Your task to perform on an android device: What's the news this week? Image 0: 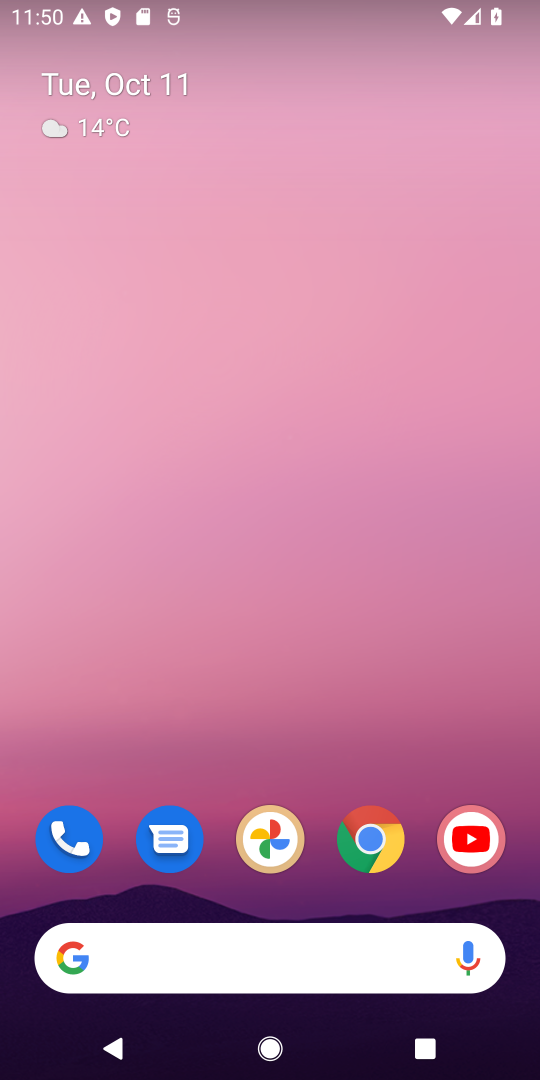
Step 0: click (360, 826)
Your task to perform on an android device: What's the news this week? Image 1: 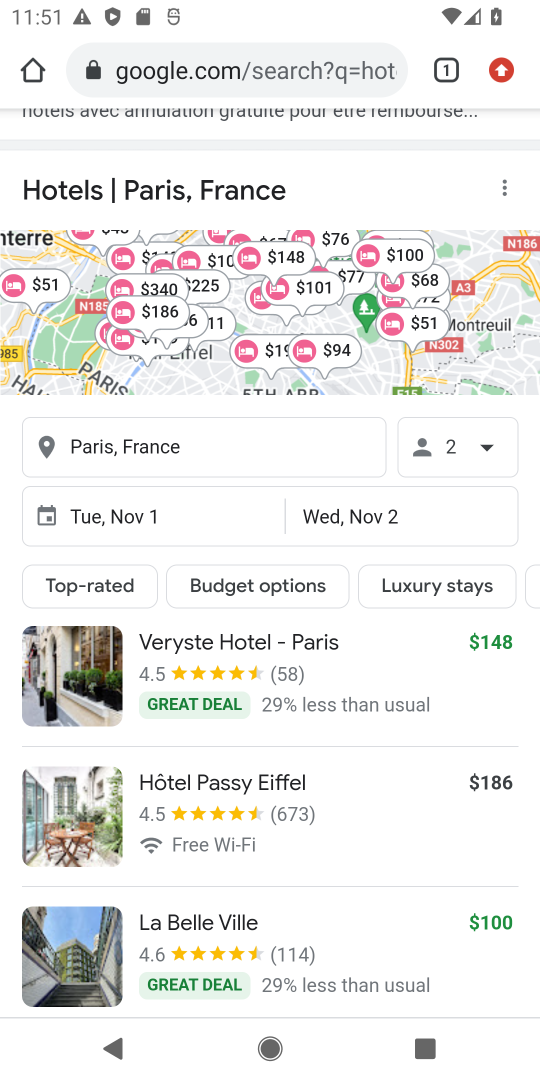
Step 1: click (285, 72)
Your task to perform on an android device: What's the news this week? Image 2: 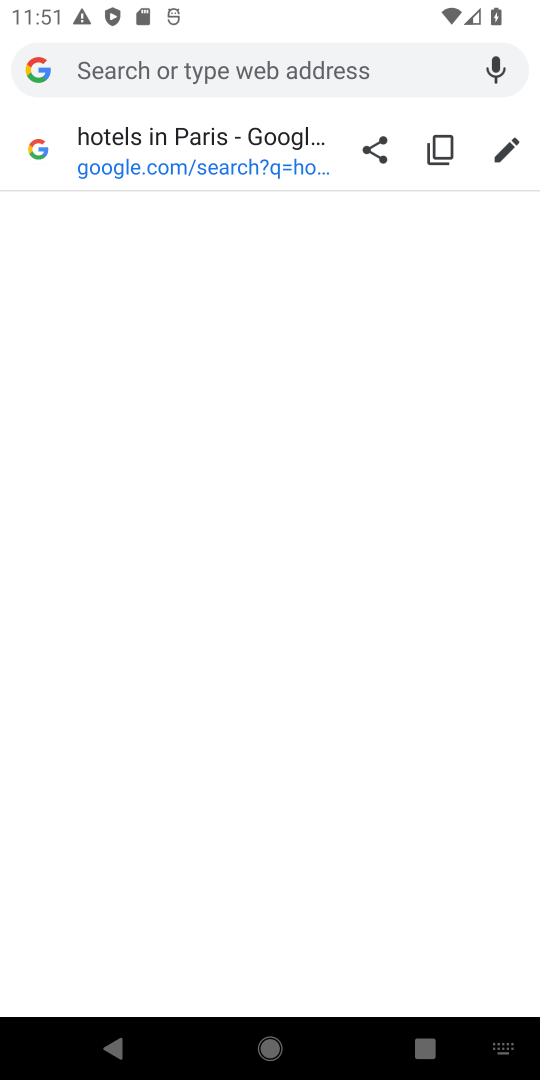
Step 2: type "news this week"
Your task to perform on an android device: What's the news this week? Image 3: 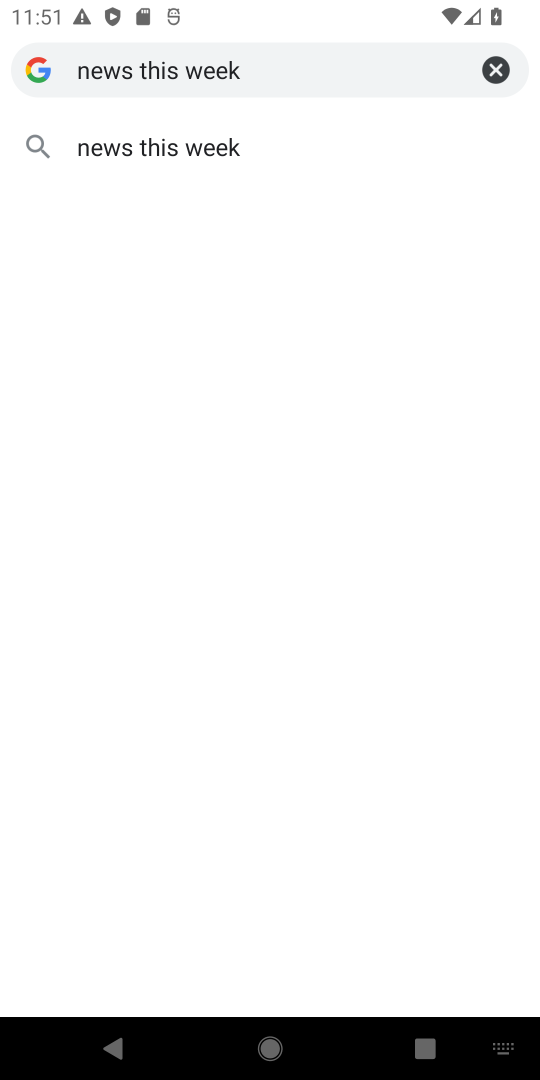
Step 3: click (355, 140)
Your task to perform on an android device: What's the news this week? Image 4: 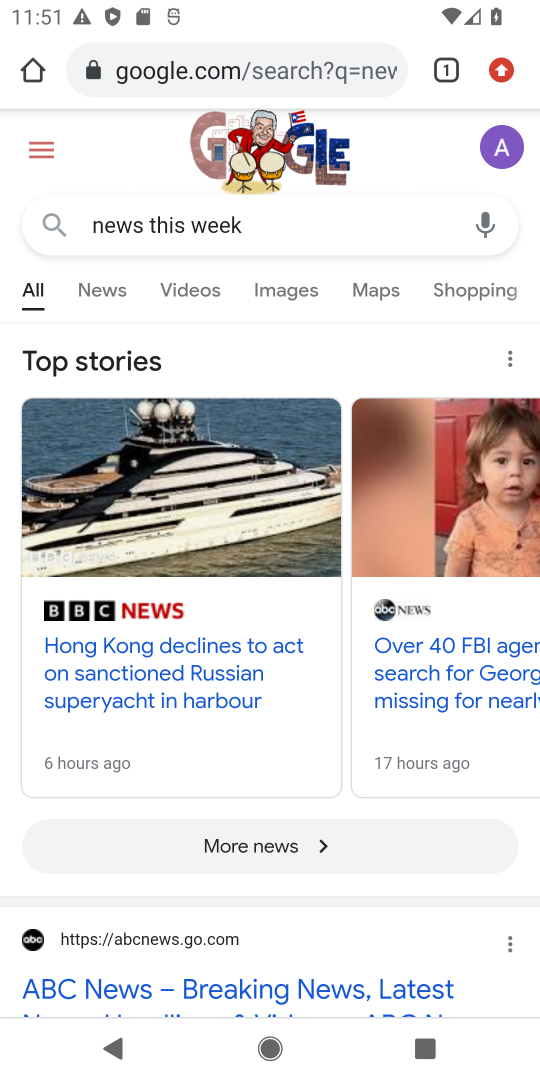
Step 4: drag from (353, 937) to (329, 853)
Your task to perform on an android device: What's the news this week? Image 5: 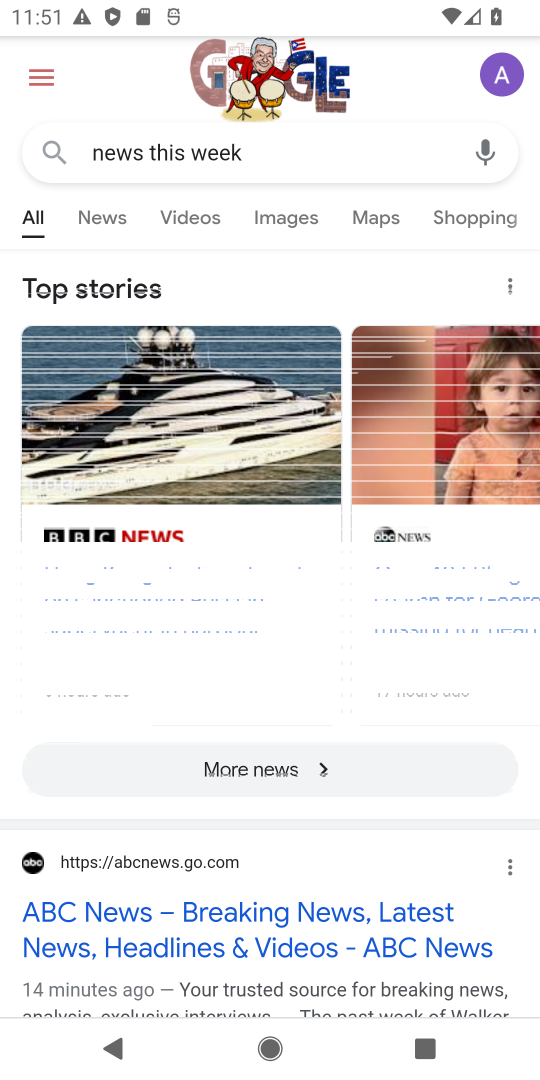
Step 5: click (94, 208)
Your task to perform on an android device: What's the news this week? Image 6: 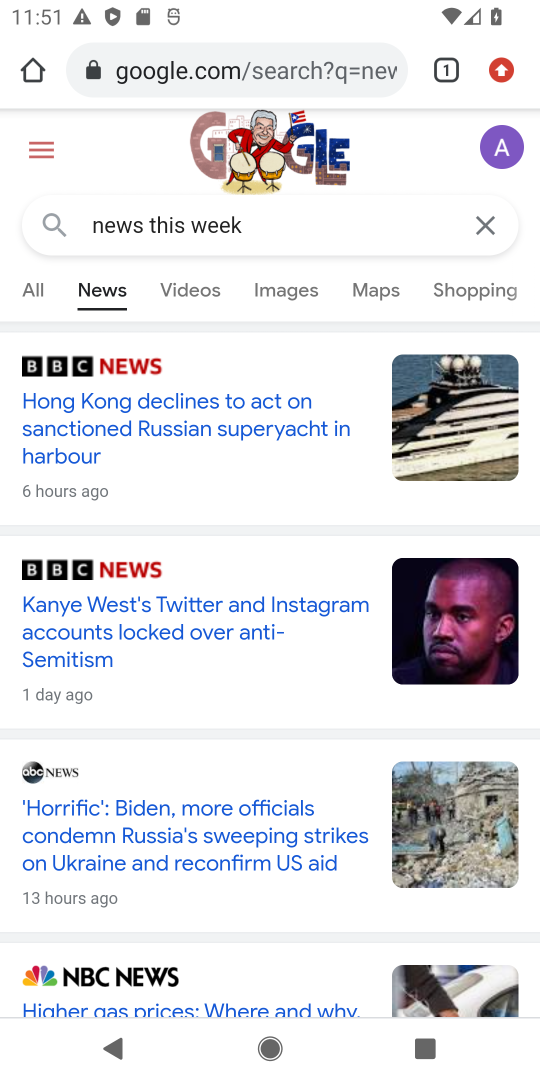
Step 6: task complete